Your task to perform on an android device: change alarm snooze length Image 0: 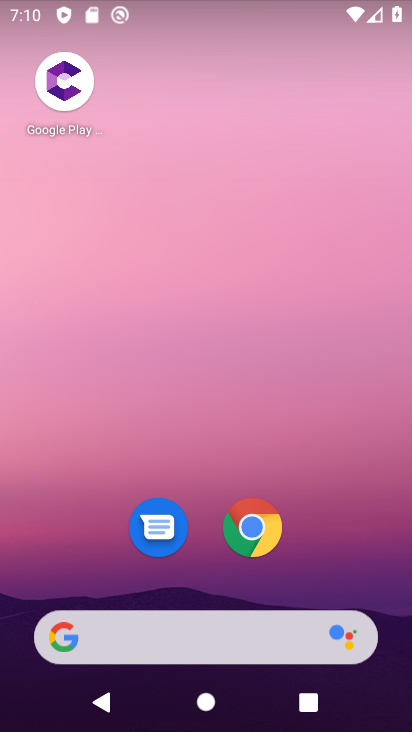
Step 0: drag from (325, 523) to (297, 86)
Your task to perform on an android device: change alarm snooze length Image 1: 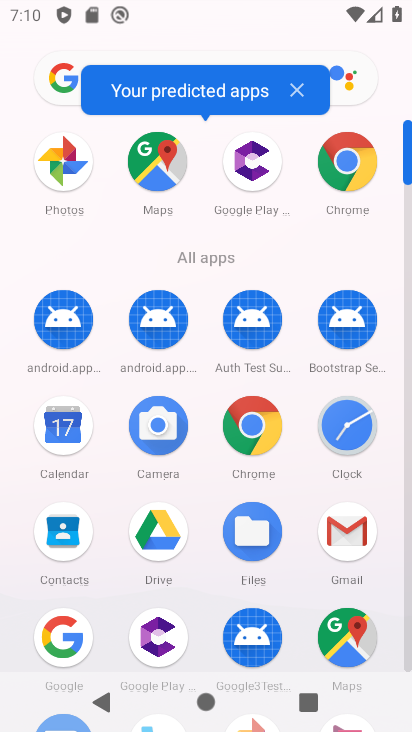
Step 1: click (357, 434)
Your task to perform on an android device: change alarm snooze length Image 2: 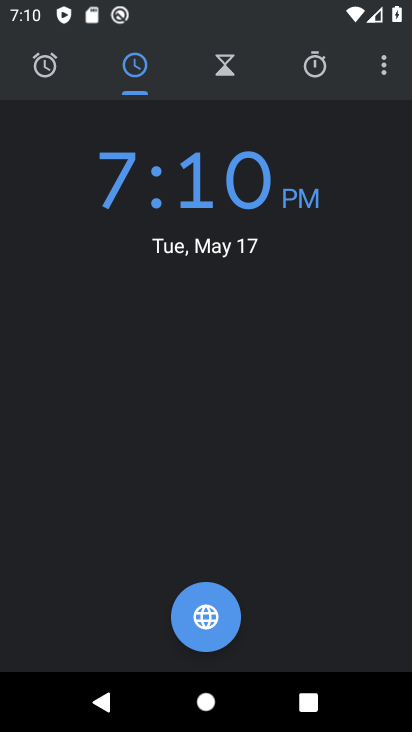
Step 2: click (383, 73)
Your task to perform on an android device: change alarm snooze length Image 3: 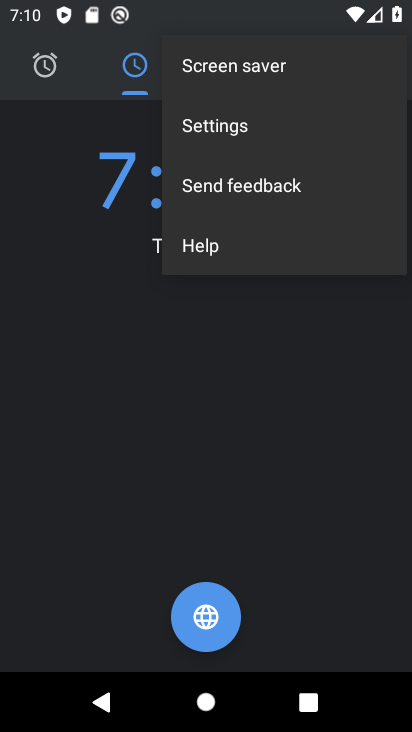
Step 3: click (253, 122)
Your task to perform on an android device: change alarm snooze length Image 4: 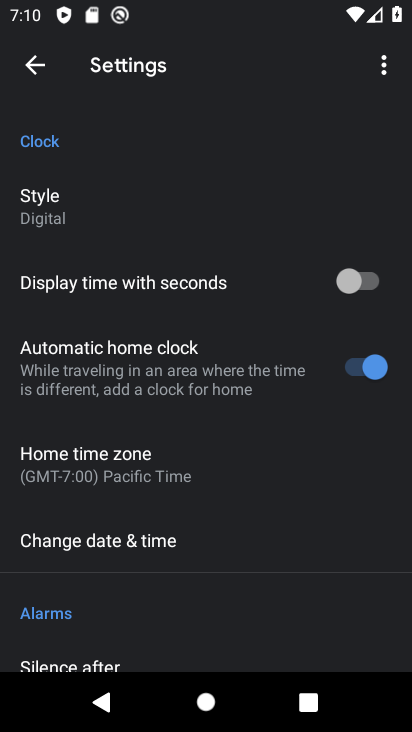
Step 4: drag from (236, 559) to (177, 356)
Your task to perform on an android device: change alarm snooze length Image 5: 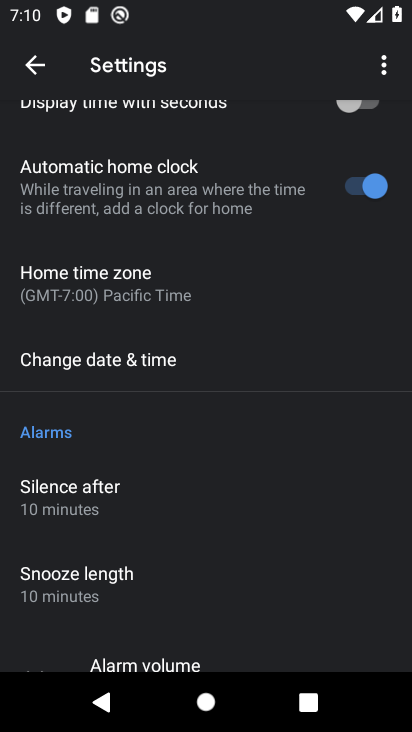
Step 5: click (128, 575)
Your task to perform on an android device: change alarm snooze length Image 6: 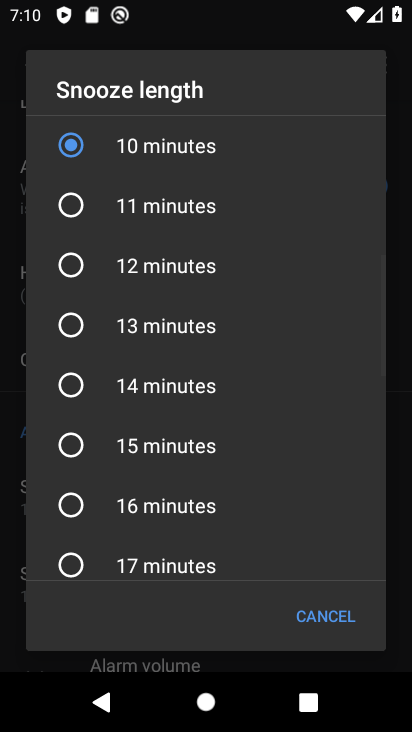
Step 6: click (143, 457)
Your task to perform on an android device: change alarm snooze length Image 7: 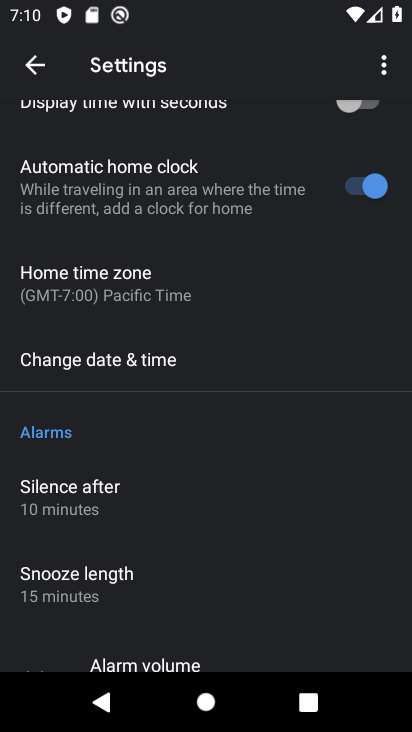
Step 7: task complete